Your task to perform on an android device: Open maps Image 0: 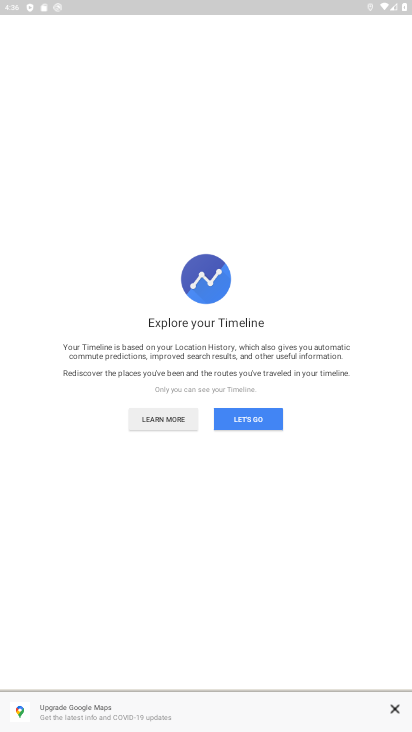
Step 0: press home button
Your task to perform on an android device: Open maps Image 1: 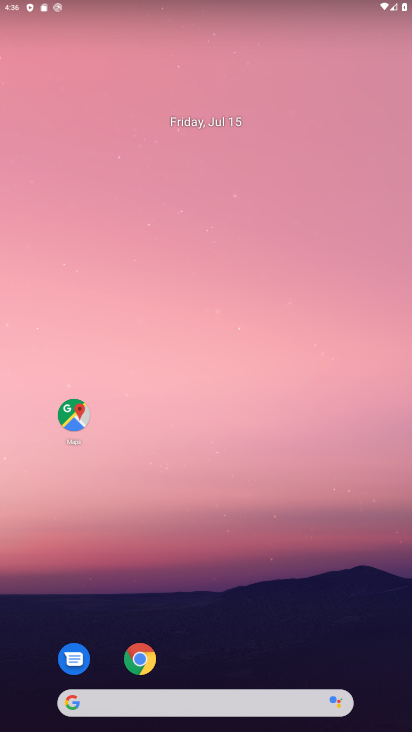
Step 1: click (69, 421)
Your task to perform on an android device: Open maps Image 2: 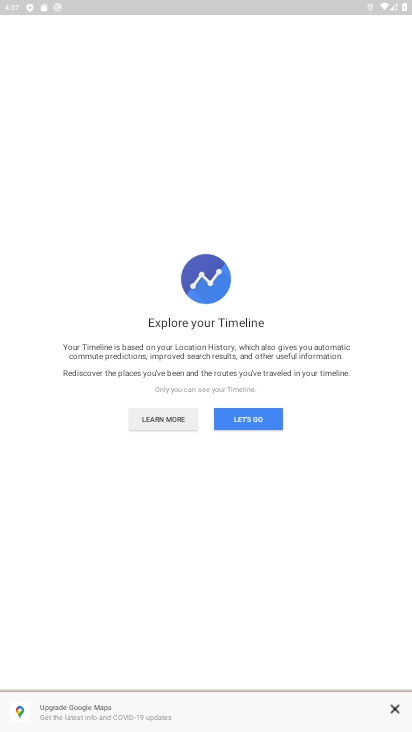
Step 2: click (237, 416)
Your task to perform on an android device: Open maps Image 3: 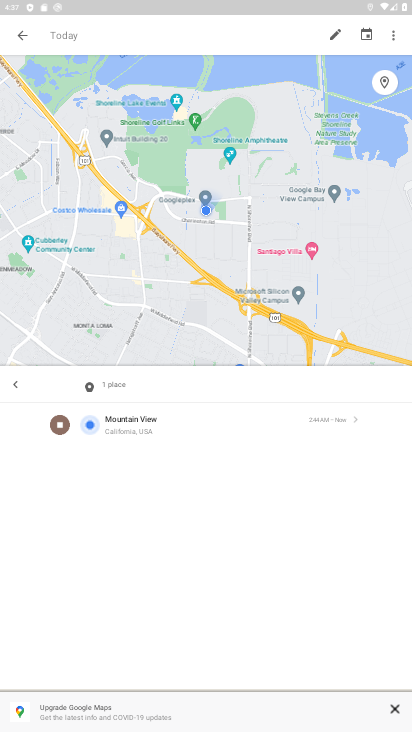
Step 3: click (31, 33)
Your task to perform on an android device: Open maps Image 4: 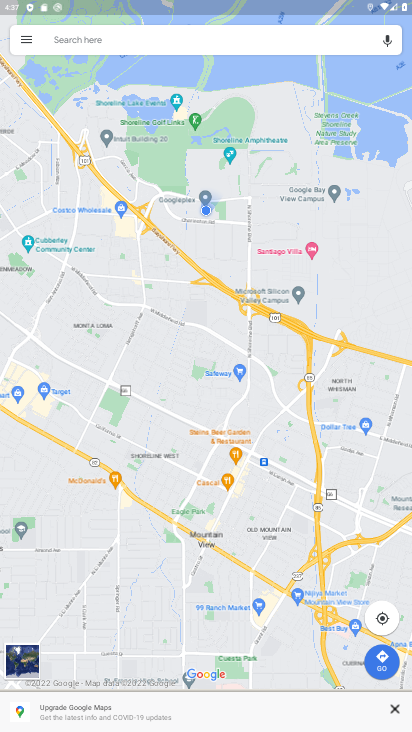
Step 4: task complete